Your task to perform on an android device: What's on my calendar today? Image 0: 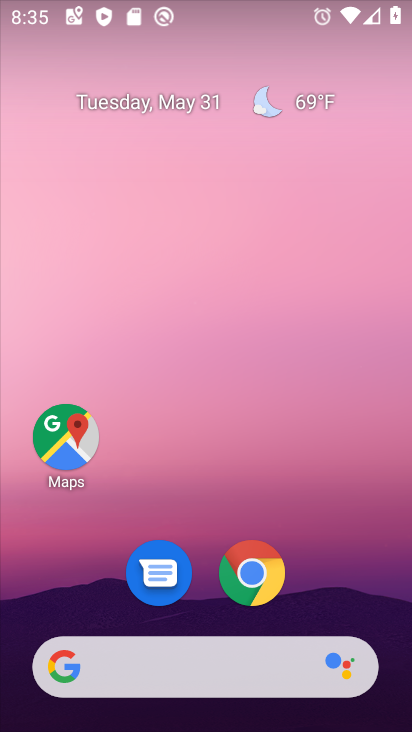
Step 0: drag from (200, 591) to (211, 165)
Your task to perform on an android device: What's on my calendar today? Image 1: 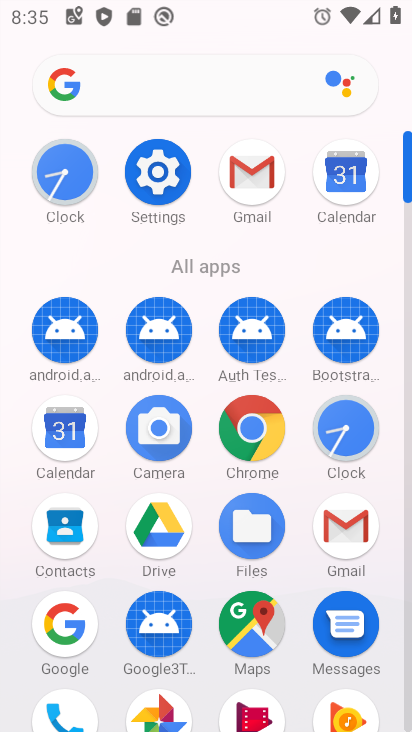
Step 1: click (349, 177)
Your task to perform on an android device: What's on my calendar today? Image 2: 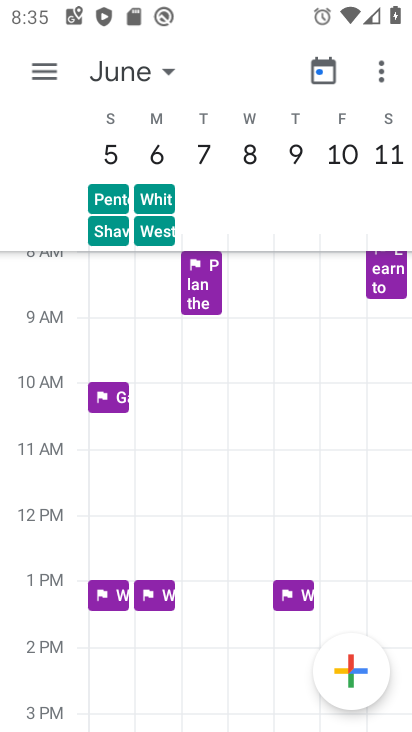
Step 2: drag from (208, 294) to (375, 295)
Your task to perform on an android device: What's on my calendar today? Image 3: 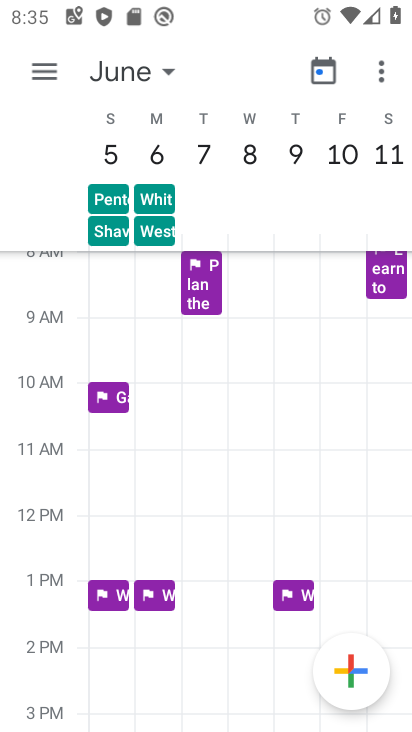
Step 3: drag from (130, 300) to (411, 339)
Your task to perform on an android device: What's on my calendar today? Image 4: 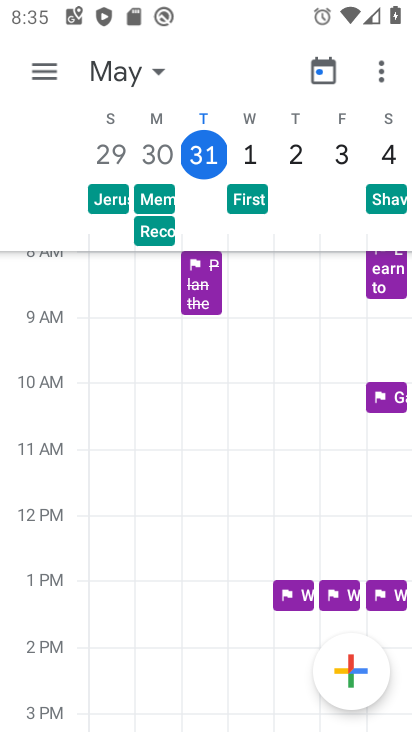
Step 4: click (252, 162)
Your task to perform on an android device: What's on my calendar today? Image 5: 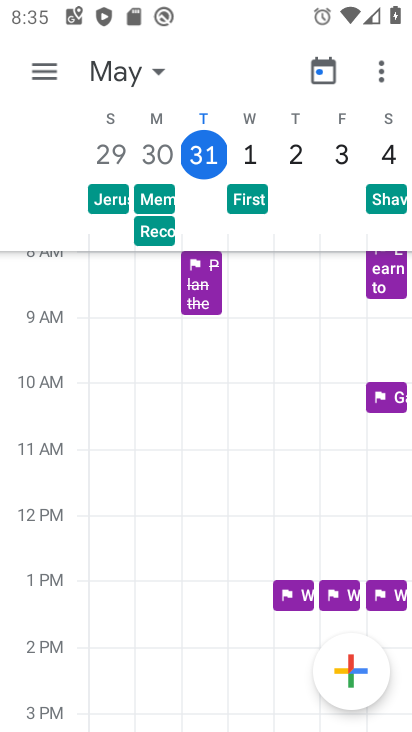
Step 5: click (252, 162)
Your task to perform on an android device: What's on my calendar today? Image 6: 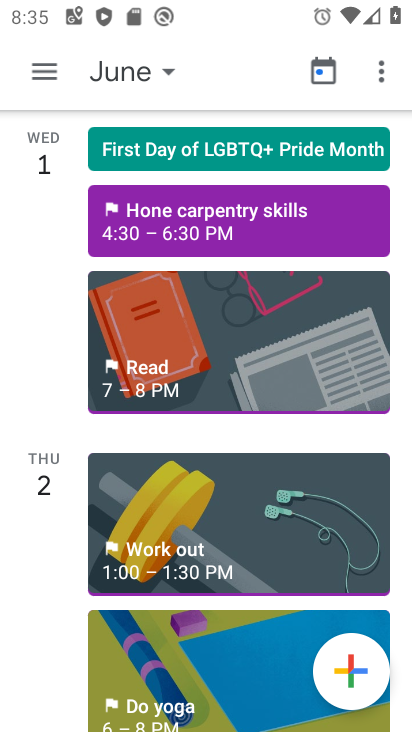
Step 6: task complete